Your task to perform on an android device: delete location history Image 0: 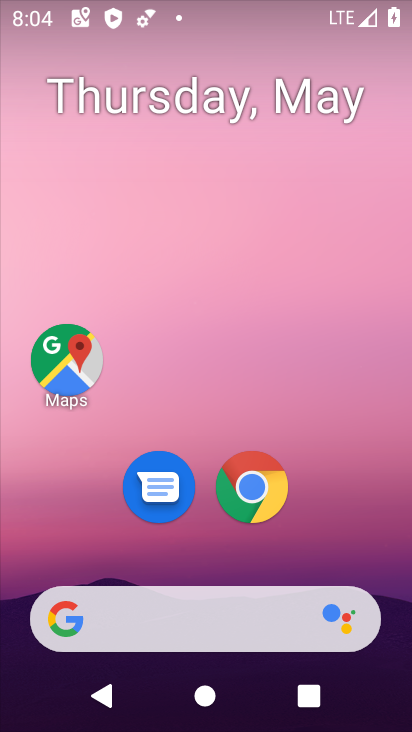
Step 0: drag from (202, 396) to (261, 0)
Your task to perform on an android device: delete location history Image 1: 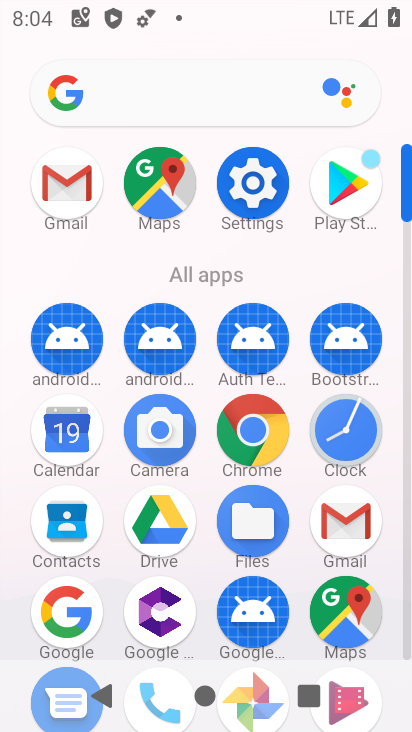
Step 1: click (239, 183)
Your task to perform on an android device: delete location history Image 2: 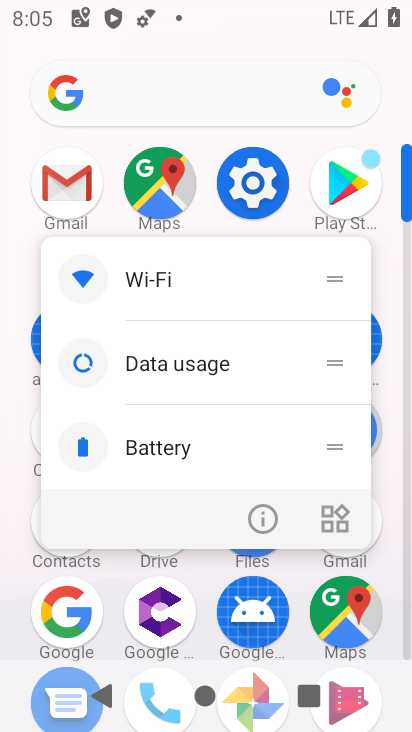
Step 2: click (255, 515)
Your task to perform on an android device: delete location history Image 3: 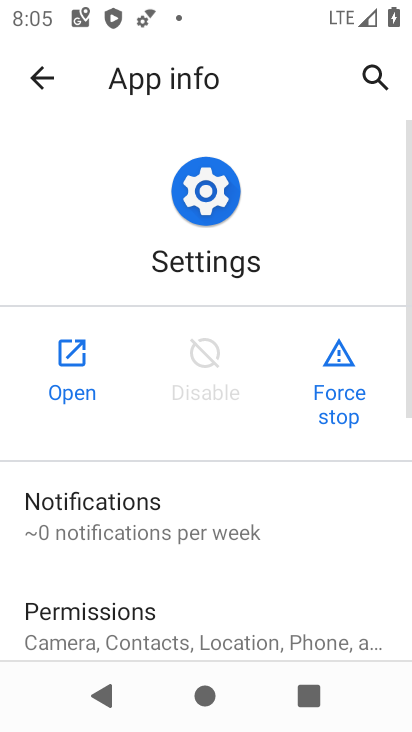
Step 3: click (89, 369)
Your task to perform on an android device: delete location history Image 4: 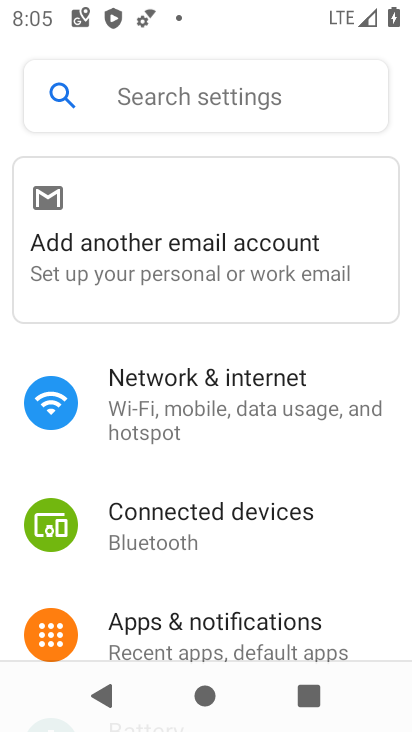
Step 4: drag from (222, 620) to (277, 0)
Your task to perform on an android device: delete location history Image 5: 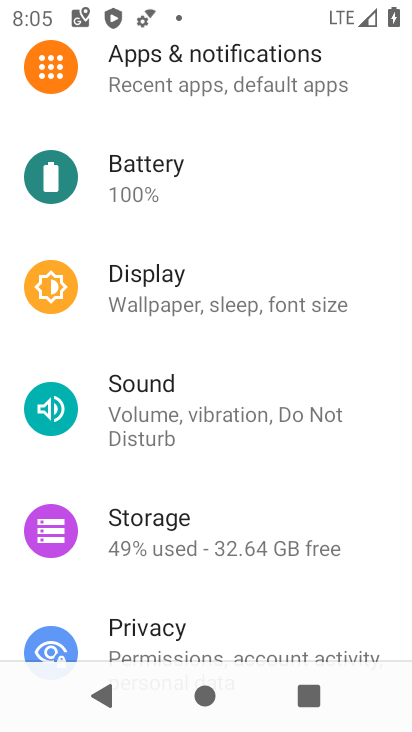
Step 5: drag from (205, 533) to (254, 155)
Your task to perform on an android device: delete location history Image 6: 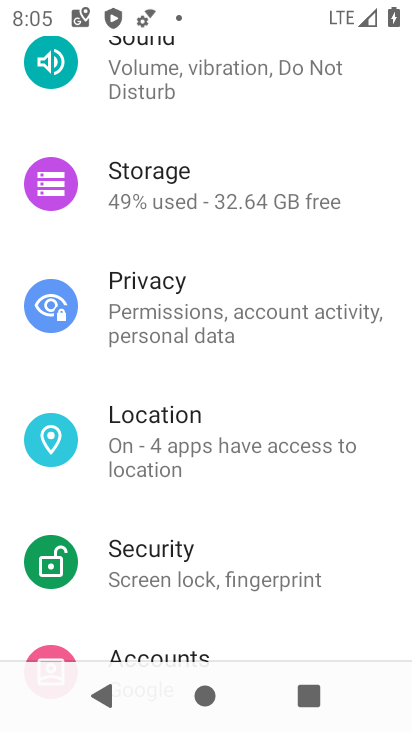
Step 6: click (184, 409)
Your task to perform on an android device: delete location history Image 7: 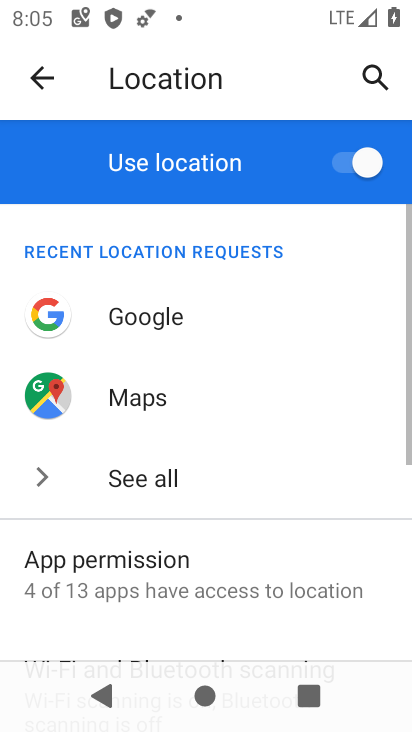
Step 7: drag from (197, 576) to (274, 89)
Your task to perform on an android device: delete location history Image 8: 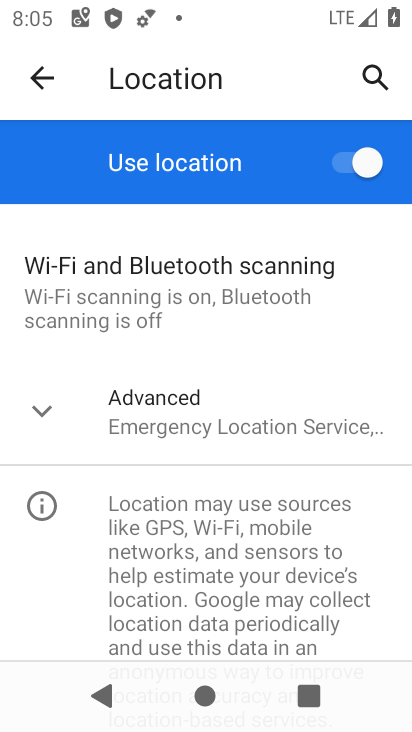
Step 8: click (144, 394)
Your task to perform on an android device: delete location history Image 9: 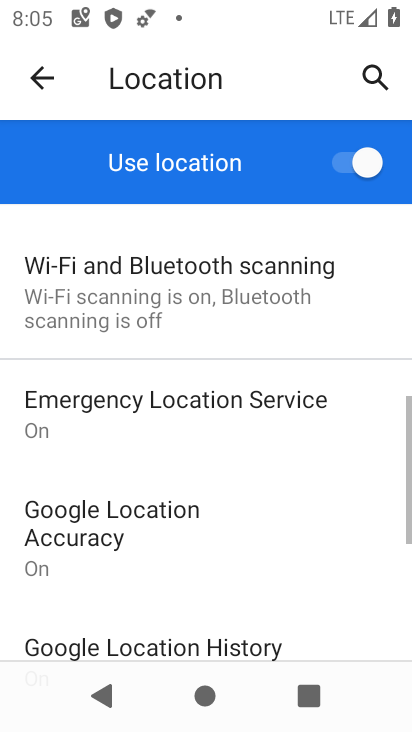
Step 9: drag from (226, 474) to (303, 140)
Your task to perform on an android device: delete location history Image 10: 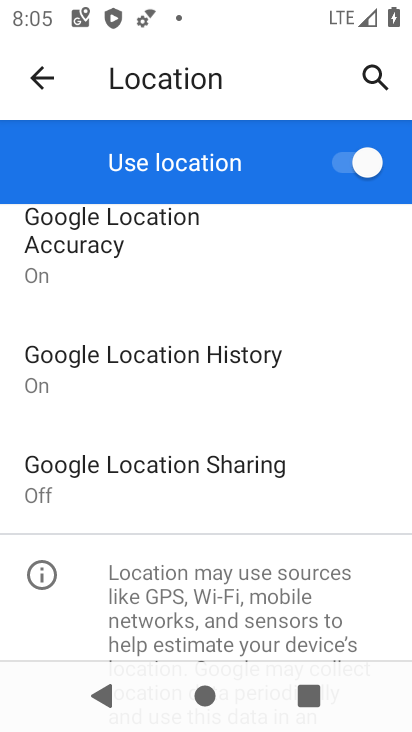
Step 10: click (248, 366)
Your task to perform on an android device: delete location history Image 11: 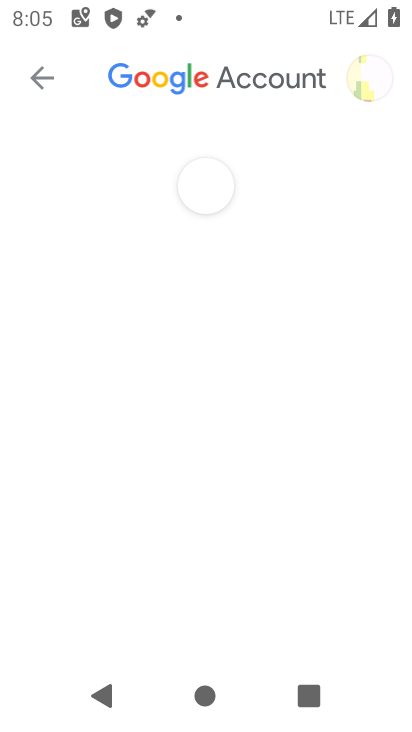
Step 11: drag from (256, 437) to (297, 143)
Your task to perform on an android device: delete location history Image 12: 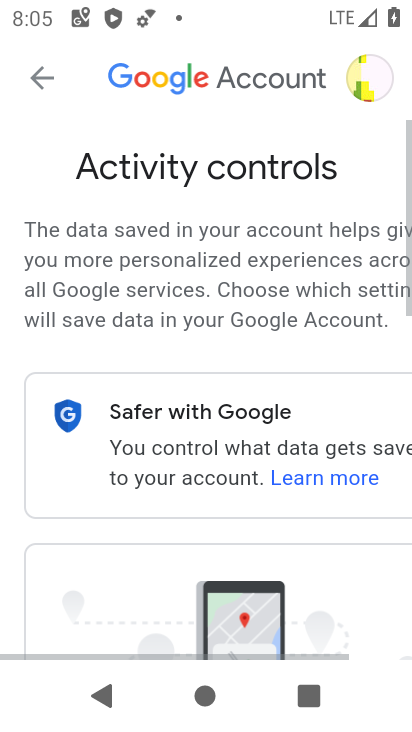
Step 12: drag from (253, 387) to (313, 26)
Your task to perform on an android device: delete location history Image 13: 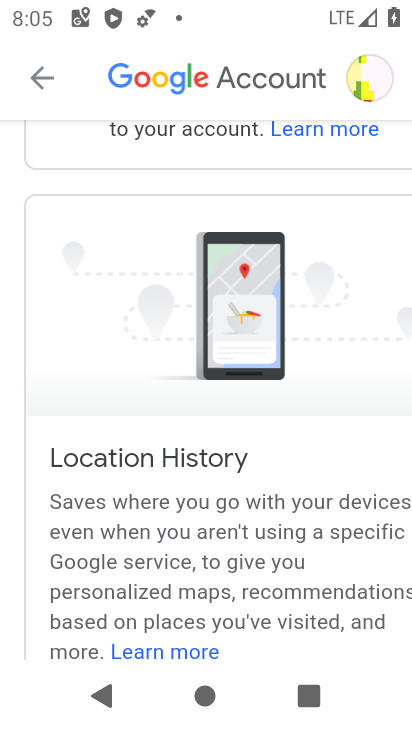
Step 13: drag from (287, 585) to (263, 148)
Your task to perform on an android device: delete location history Image 14: 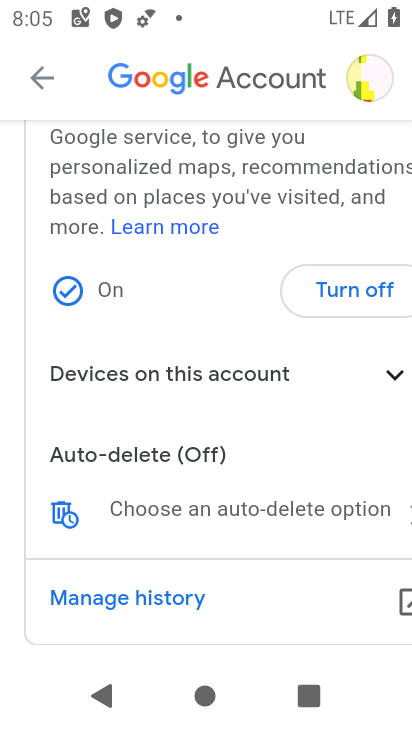
Step 14: click (63, 515)
Your task to perform on an android device: delete location history Image 15: 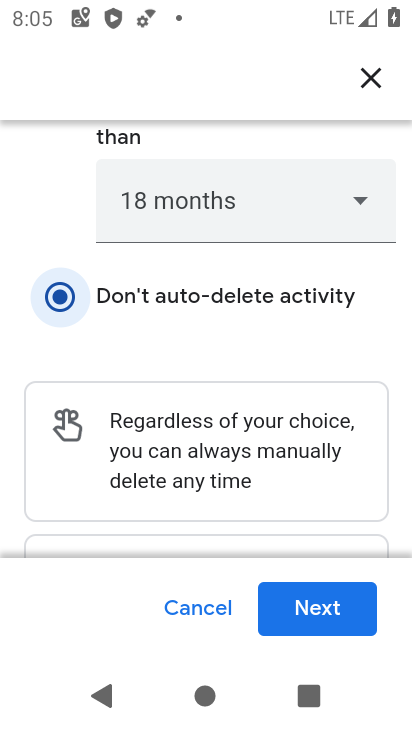
Step 15: click (279, 615)
Your task to perform on an android device: delete location history Image 16: 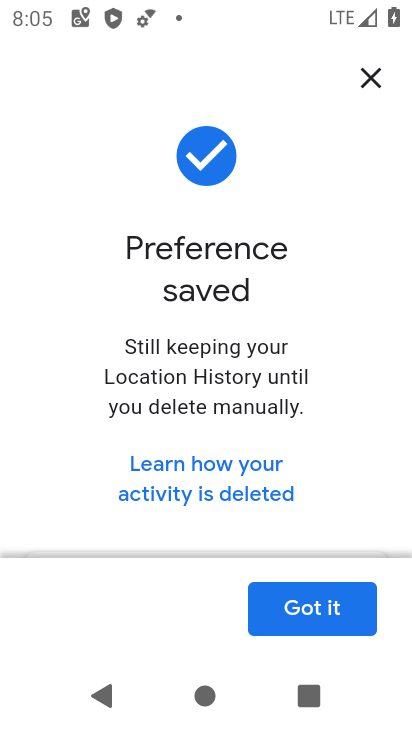
Step 16: click (287, 609)
Your task to perform on an android device: delete location history Image 17: 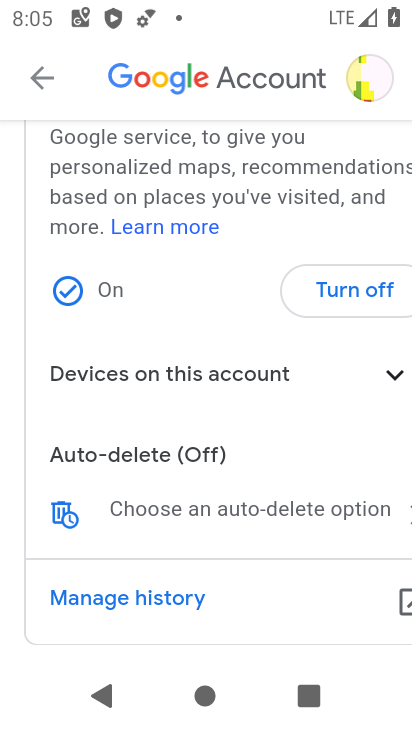
Step 17: task complete